Your task to perform on an android device: Open Amazon Image 0: 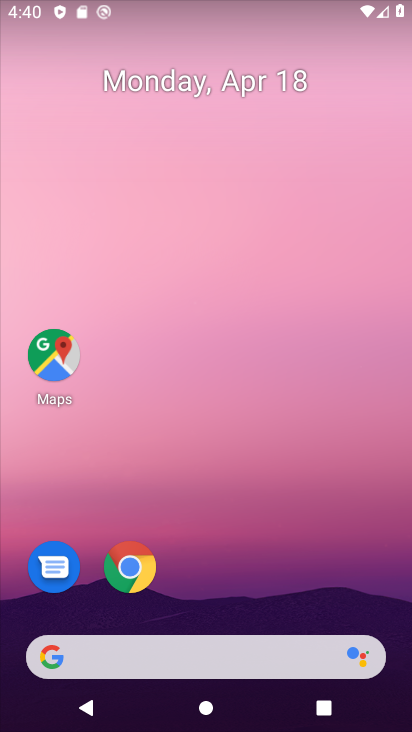
Step 0: click (124, 556)
Your task to perform on an android device: Open Amazon Image 1: 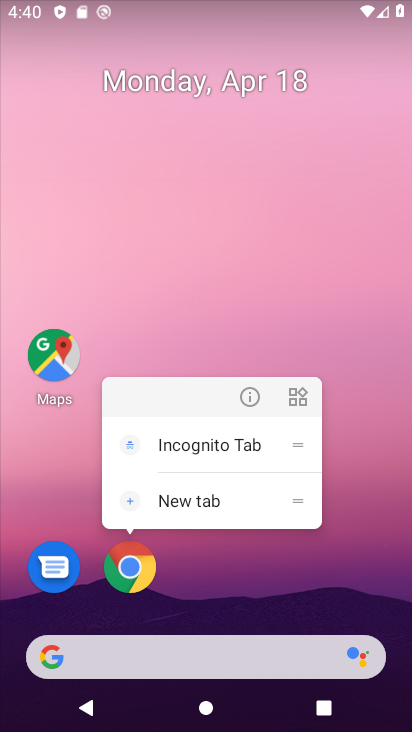
Step 1: click (124, 556)
Your task to perform on an android device: Open Amazon Image 2: 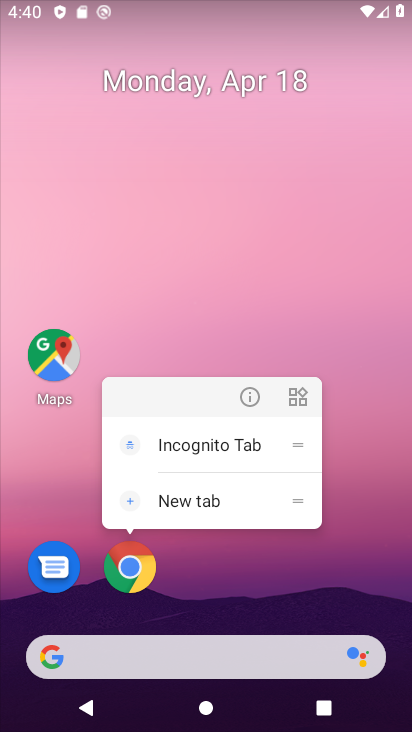
Step 2: click (208, 493)
Your task to perform on an android device: Open Amazon Image 3: 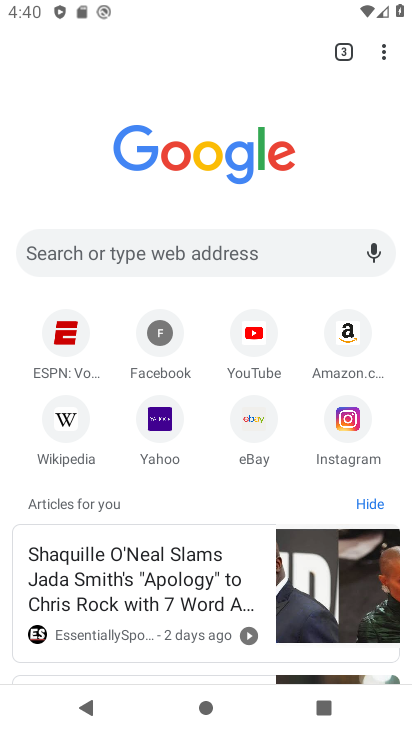
Step 3: click (349, 334)
Your task to perform on an android device: Open Amazon Image 4: 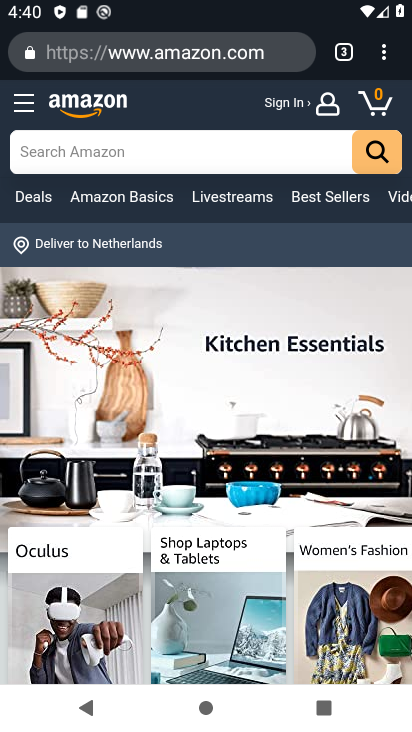
Step 4: task complete